Your task to perform on an android device: Is it going to rain today? Image 0: 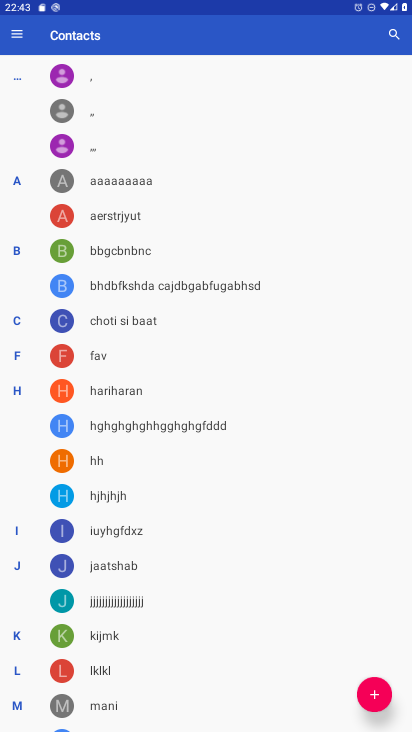
Step 0: press home button
Your task to perform on an android device: Is it going to rain today? Image 1: 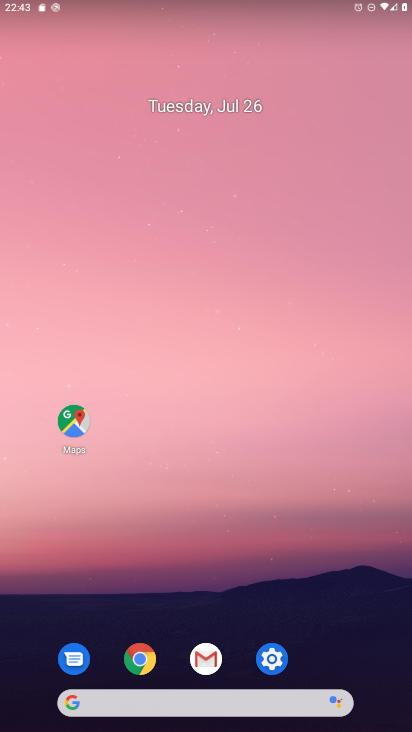
Step 1: click (210, 697)
Your task to perform on an android device: Is it going to rain today? Image 2: 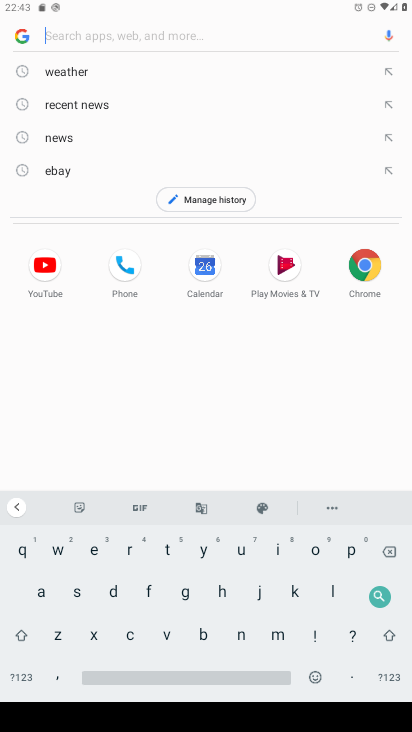
Step 2: click (277, 546)
Your task to perform on an android device: Is it going to rain today? Image 3: 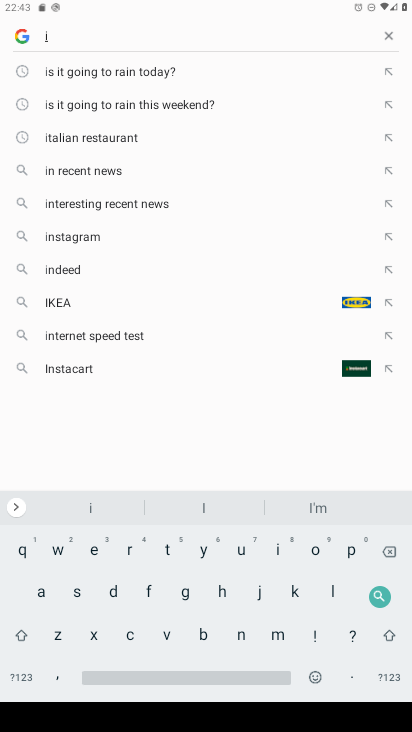
Step 3: click (113, 64)
Your task to perform on an android device: Is it going to rain today? Image 4: 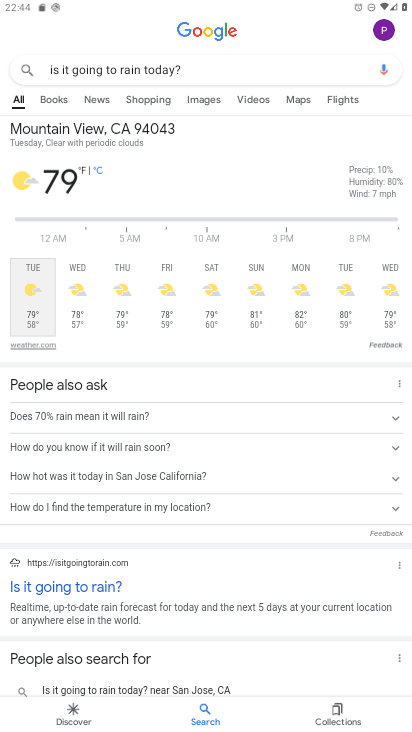
Step 4: task complete